Your task to perform on an android device: Open calendar and show me the second week of next month Image 0: 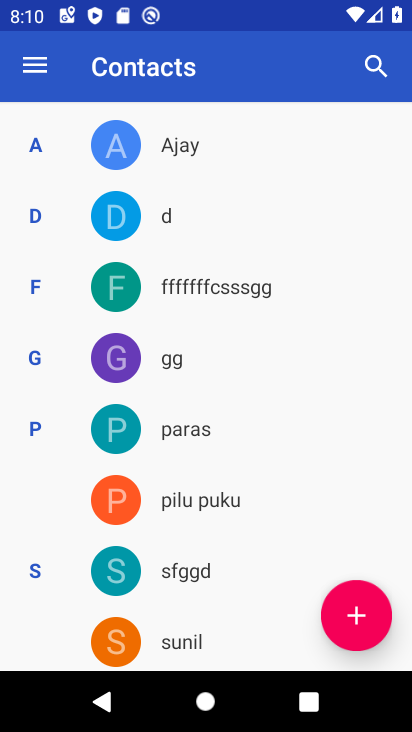
Step 0: press home button
Your task to perform on an android device: Open calendar and show me the second week of next month Image 1: 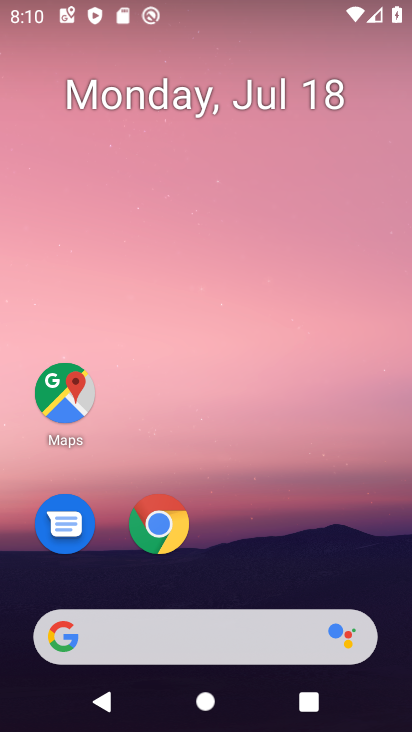
Step 1: drag from (276, 586) to (271, 111)
Your task to perform on an android device: Open calendar and show me the second week of next month Image 2: 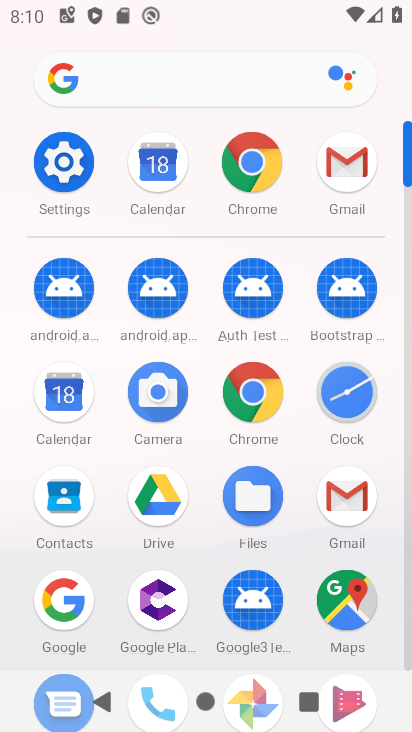
Step 2: click (154, 158)
Your task to perform on an android device: Open calendar and show me the second week of next month Image 3: 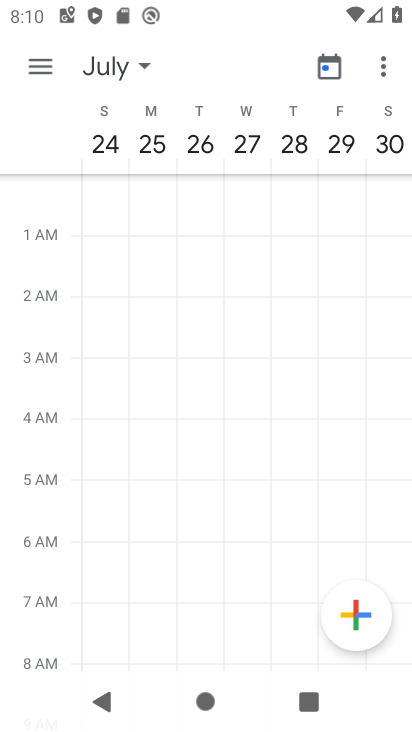
Step 3: task complete